Your task to perform on an android device: Open notification settings Image 0: 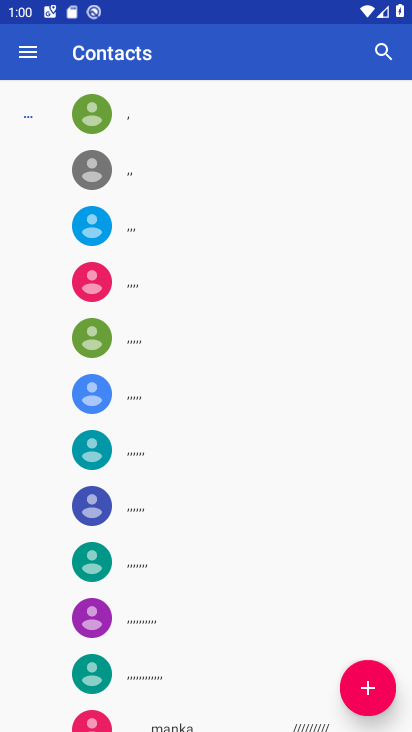
Step 0: press home button
Your task to perform on an android device: Open notification settings Image 1: 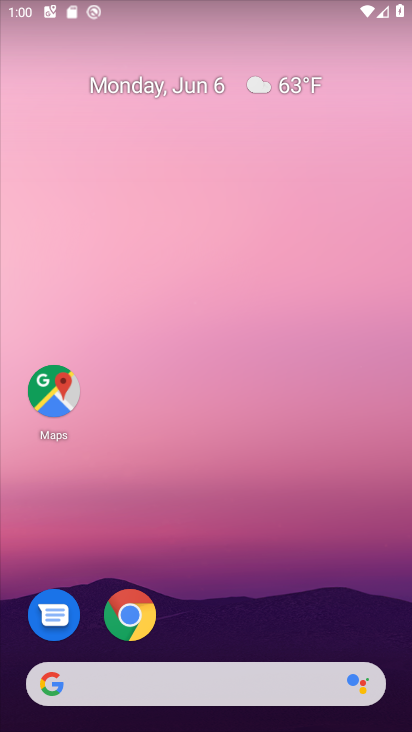
Step 1: drag from (238, 618) to (272, 55)
Your task to perform on an android device: Open notification settings Image 2: 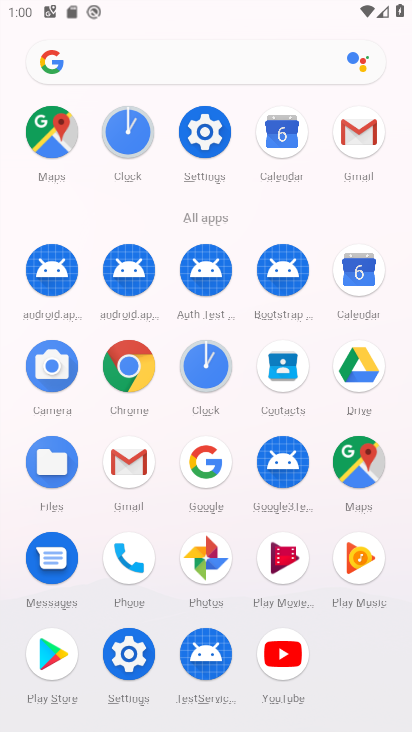
Step 2: click (204, 144)
Your task to perform on an android device: Open notification settings Image 3: 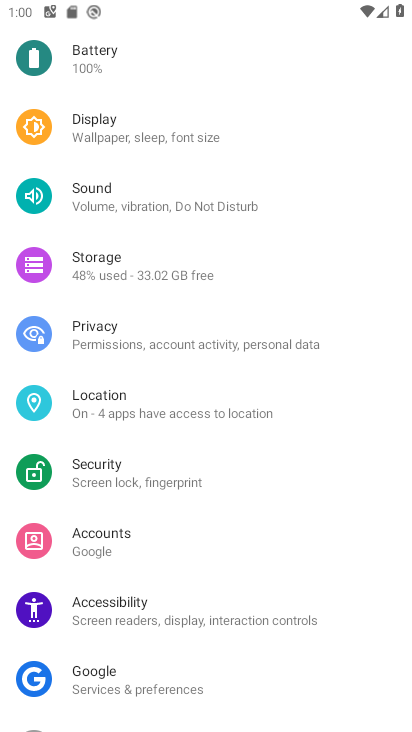
Step 3: drag from (156, 202) to (209, 664)
Your task to perform on an android device: Open notification settings Image 4: 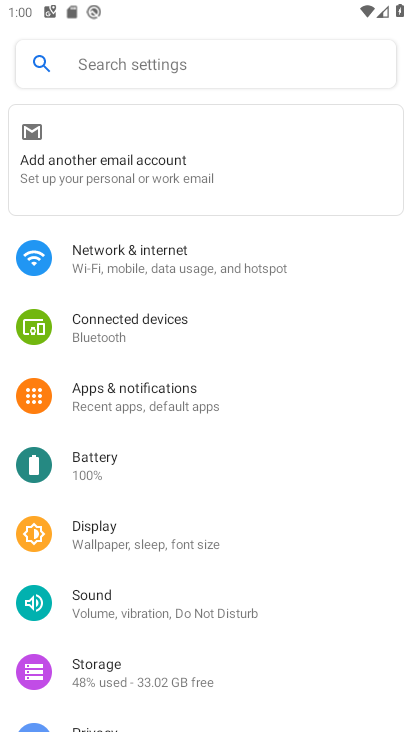
Step 4: click (140, 402)
Your task to perform on an android device: Open notification settings Image 5: 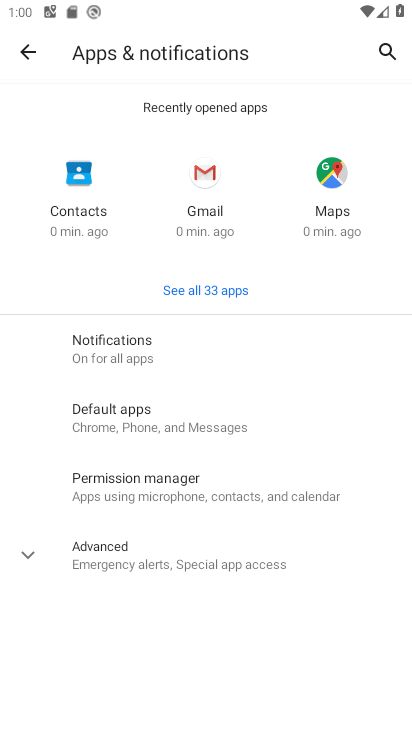
Step 5: click (154, 360)
Your task to perform on an android device: Open notification settings Image 6: 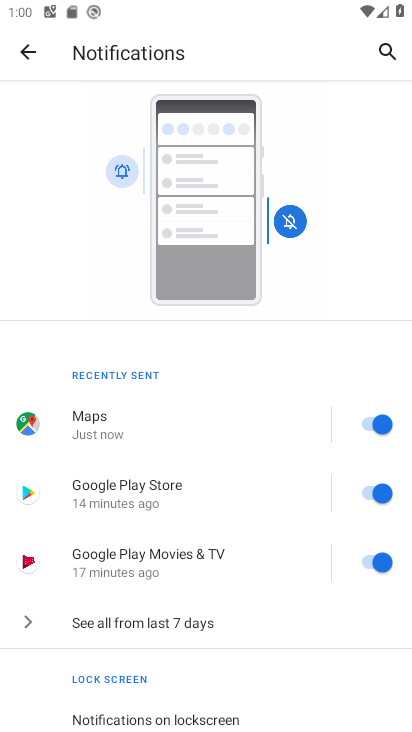
Step 6: task complete